Your task to perform on an android device: turn notification dots off Image 0: 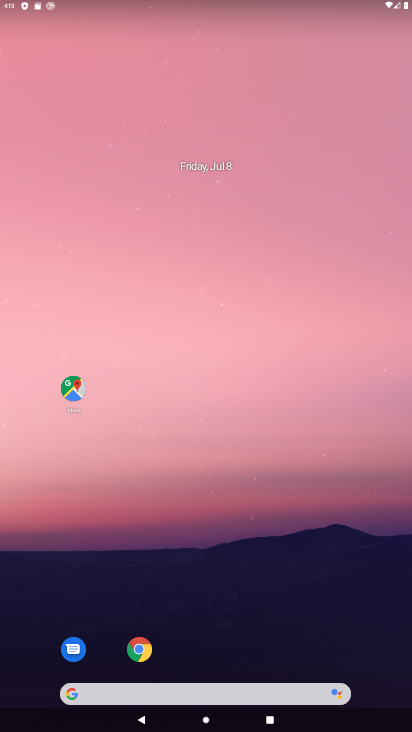
Step 0: drag from (190, 646) to (271, 79)
Your task to perform on an android device: turn notification dots off Image 1: 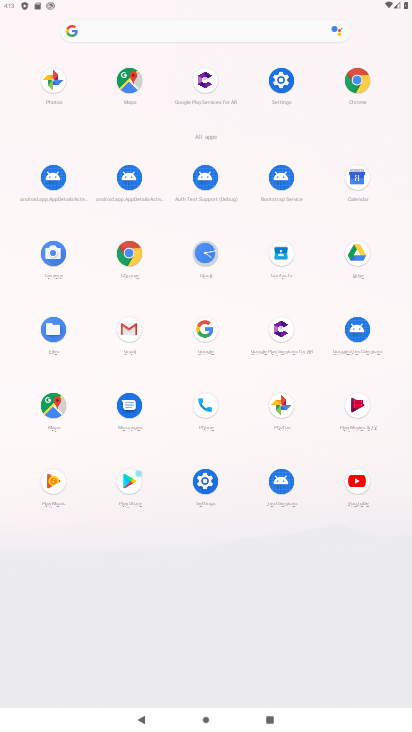
Step 1: click (210, 483)
Your task to perform on an android device: turn notification dots off Image 2: 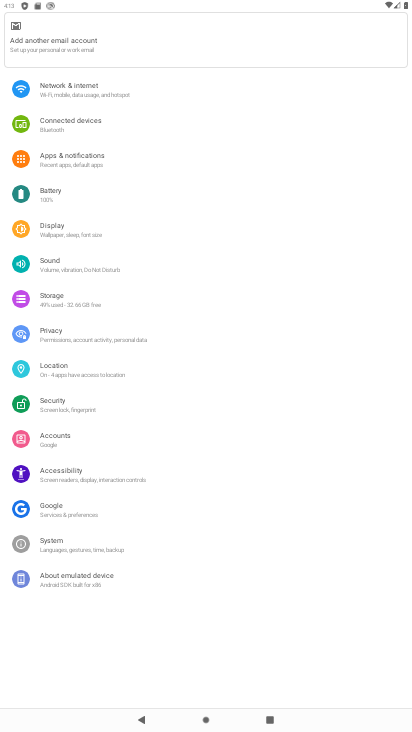
Step 2: click (122, 168)
Your task to perform on an android device: turn notification dots off Image 3: 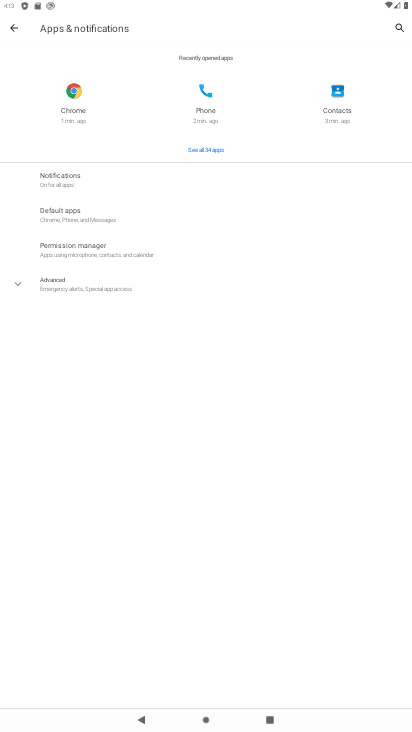
Step 3: click (87, 187)
Your task to perform on an android device: turn notification dots off Image 4: 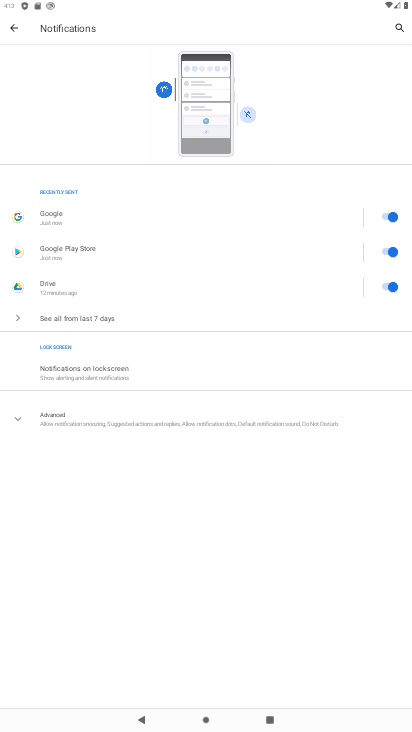
Step 4: click (119, 415)
Your task to perform on an android device: turn notification dots off Image 5: 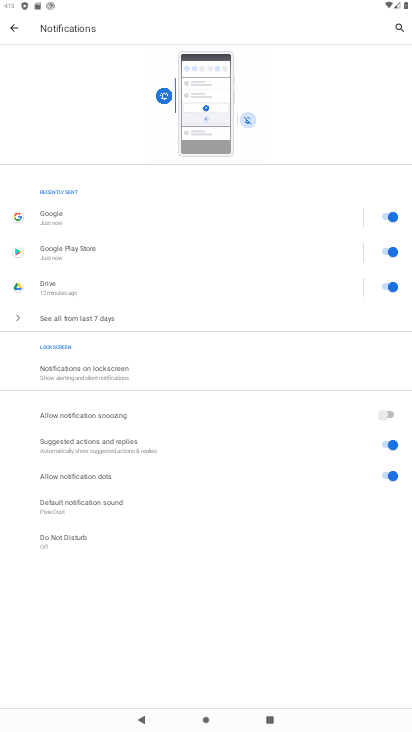
Step 5: click (383, 471)
Your task to perform on an android device: turn notification dots off Image 6: 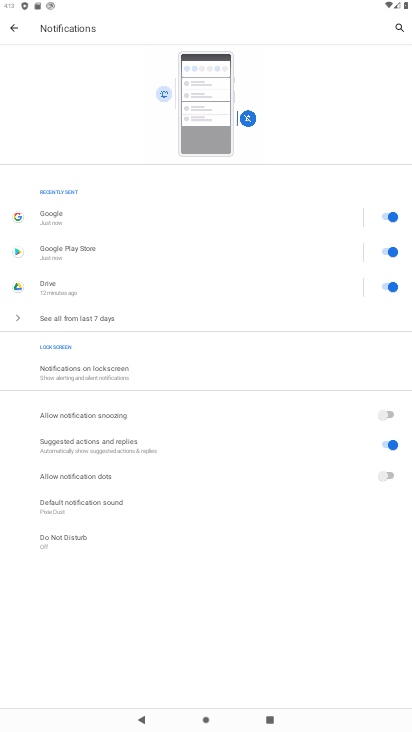
Step 6: task complete